Your task to perform on an android device: Go to Android settings Image 0: 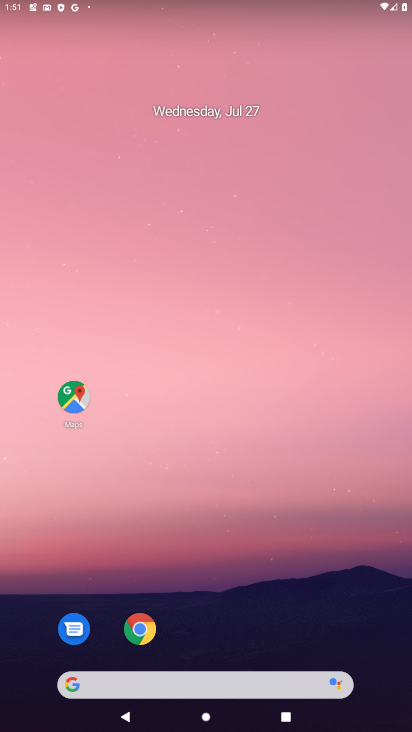
Step 0: drag from (307, 641) to (197, 31)
Your task to perform on an android device: Go to Android settings Image 1: 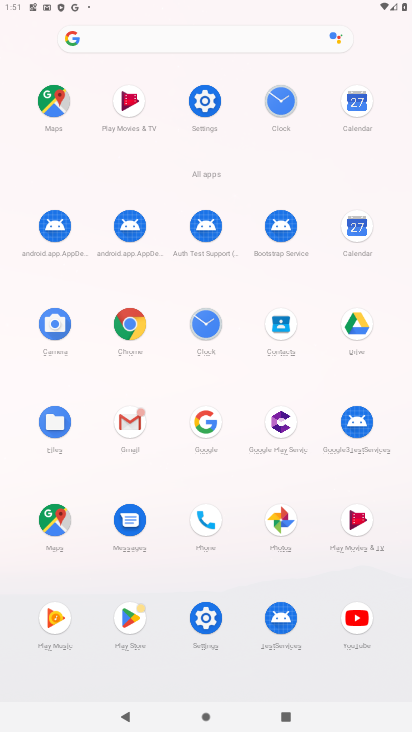
Step 1: click (190, 126)
Your task to perform on an android device: Go to Android settings Image 2: 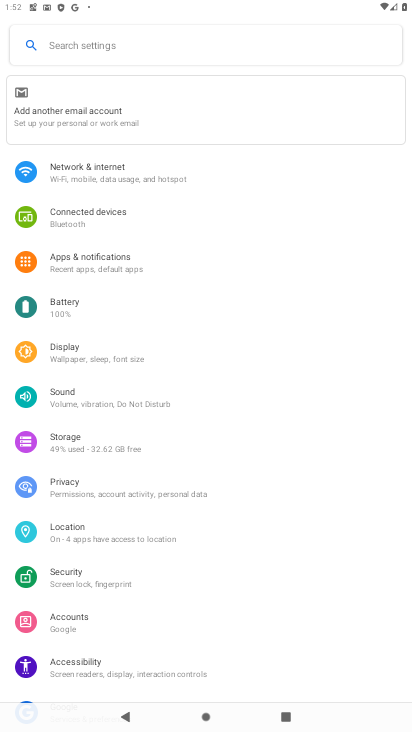
Step 2: task complete